Your task to perform on an android device: Open Google Chrome and click the shortcut for Amazon.com Image 0: 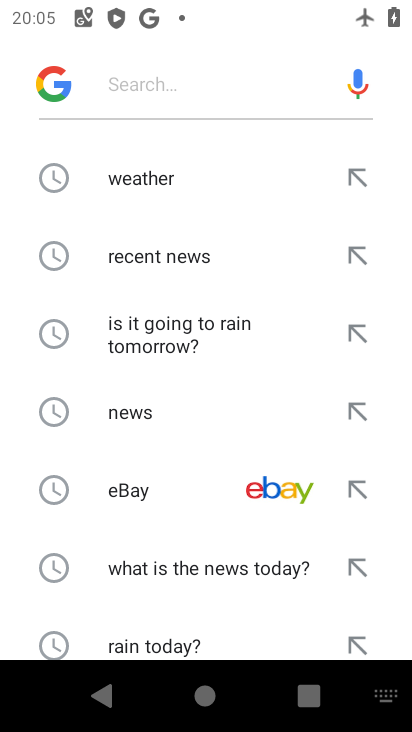
Step 0: press back button
Your task to perform on an android device: Open Google Chrome and click the shortcut for Amazon.com Image 1: 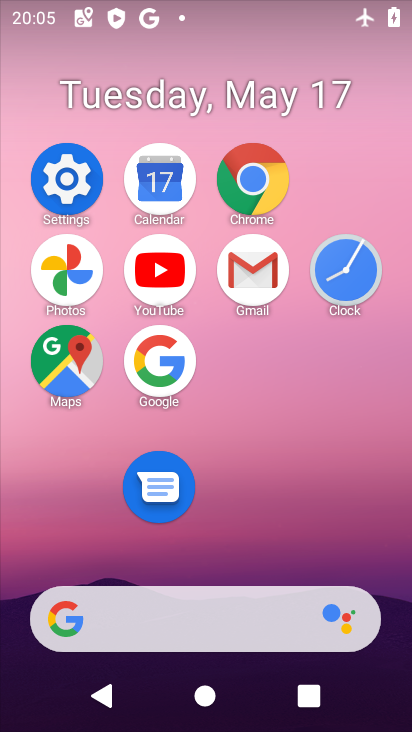
Step 1: click (267, 192)
Your task to perform on an android device: Open Google Chrome and click the shortcut for Amazon.com Image 2: 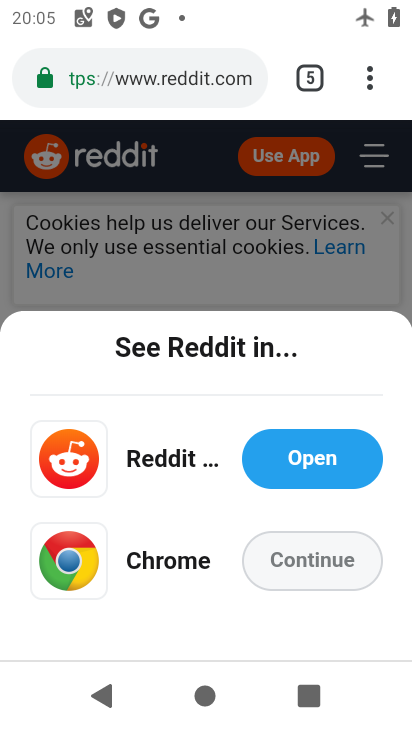
Step 2: click (302, 66)
Your task to perform on an android device: Open Google Chrome and click the shortcut for Amazon.com Image 3: 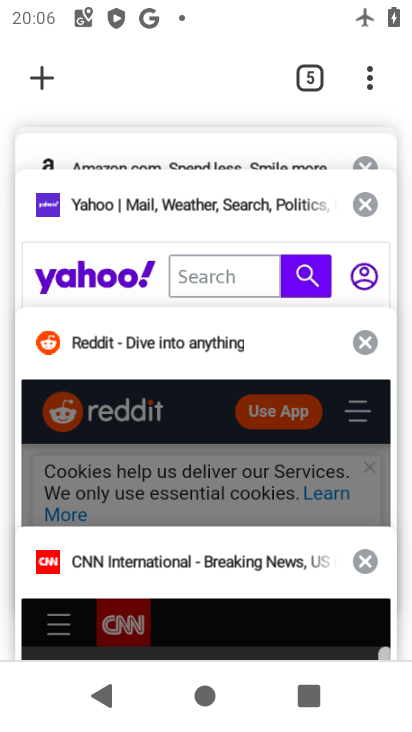
Step 3: drag from (166, 210) to (144, 409)
Your task to perform on an android device: Open Google Chrome and click the shortcut for Amazon.com Image 4: 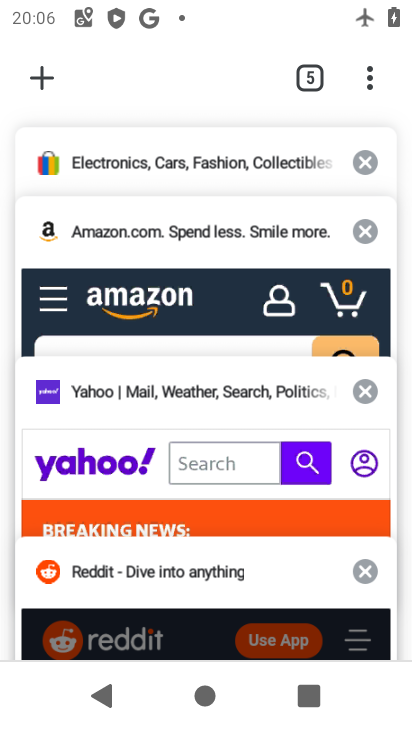
Step 4: click (167, 256)
Your task to perform on an android device: Open Google Chrome and click the shortcut for Amazon.com Image 5: 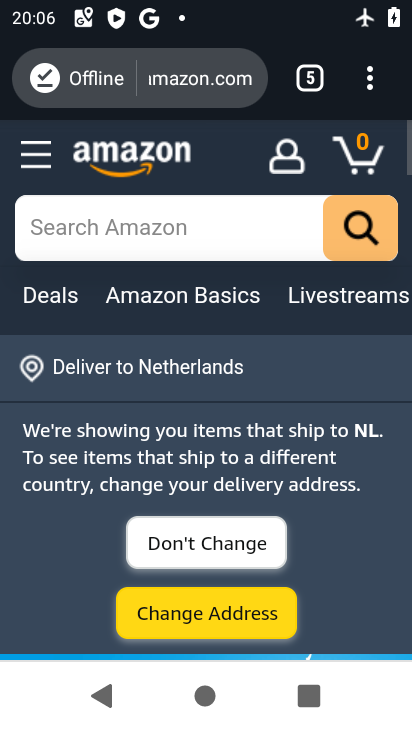
Step 5: click (378, 72)
Your task to perform on an android device: Open Google Chrome and click the shortcut for Amazon.com Image 6: 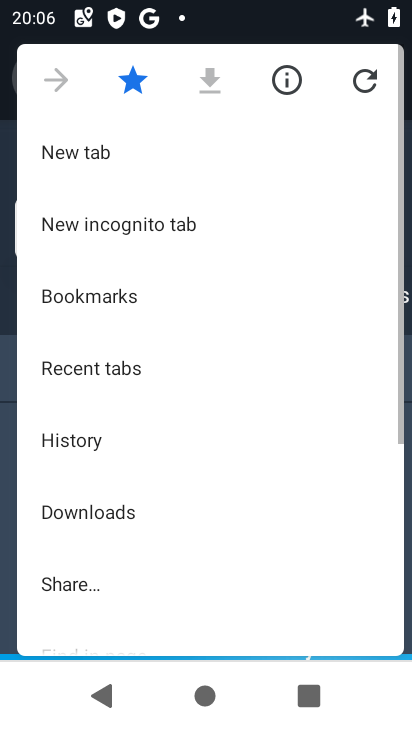
Step 6: drag from (179, 466) to (211, 166)
Your task to perform on an android device: Open Google Chrome and click the shortcut for Amazon.com Image 7: 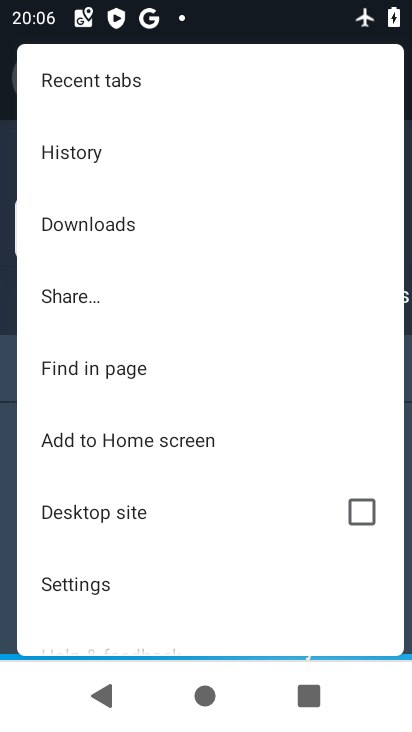
Step 7: click (213, 420)
Your task to perform on an android device: Open Google Chrome and click the shortcut for Amazon.com Image 8: 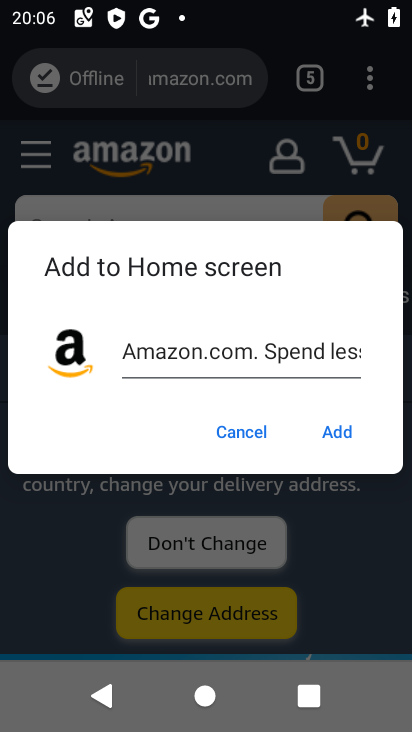
Step 8: click (329, 419)
Your task to perform on an android device: Open Google Chrome and click the shortcut for Amazon.com Image 9: 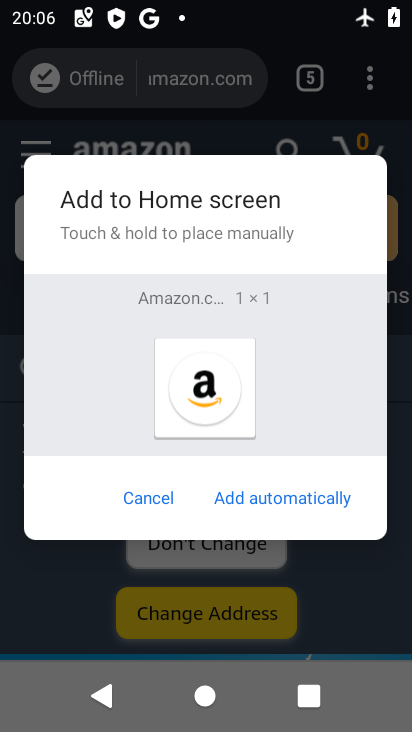
Step 9: click (299, 520)
Your task to perform on an android device: Open Google Chrome and click the shortcut for Amazon.com Image 10: 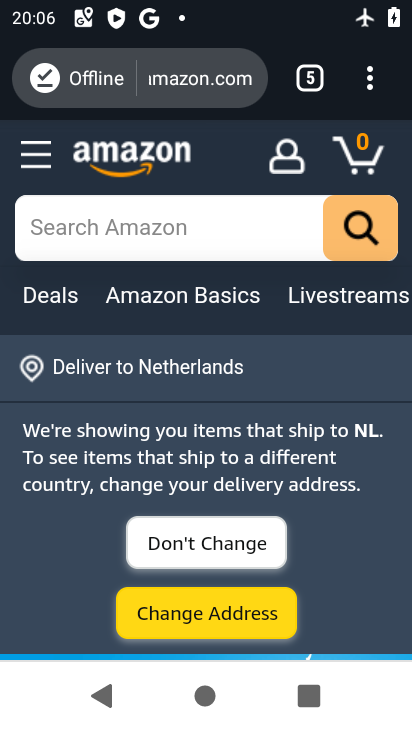
Step 10: task complete